Your task to perform on an android device: change the upload size in google photos Image 0: 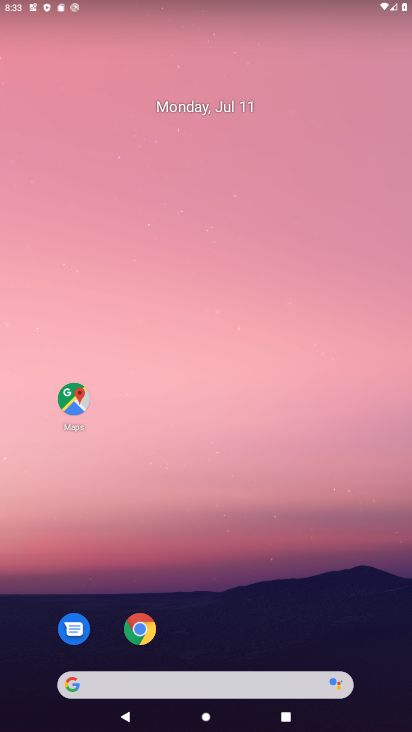
Step 0: click (136, 589)
Your task to perform on an android device: change the upload size in google photos Image 1: 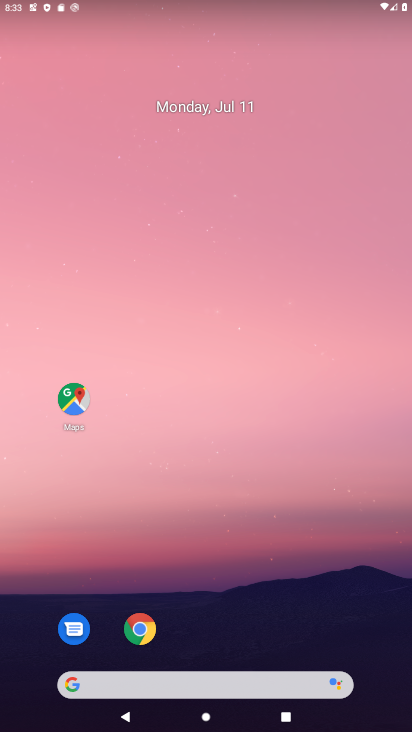
Step 1: drag from (238, 619) to (286, 104)
Your task to perform on an android device: change the upload size in google photos Image 2: 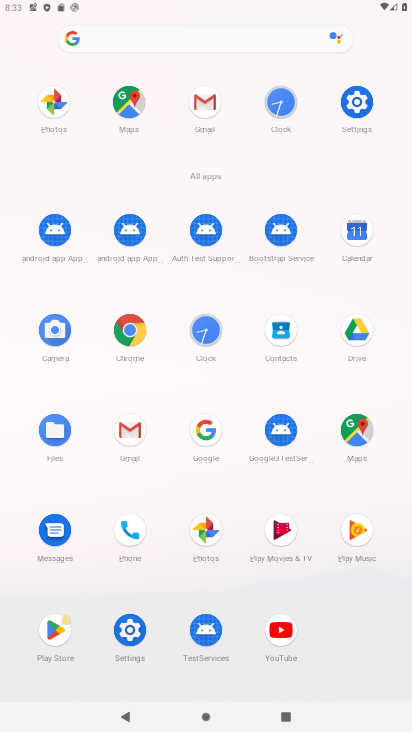
Step 2: click (53, 100)
Your task to perform on an android device: change the upload size in google photos Image 3: 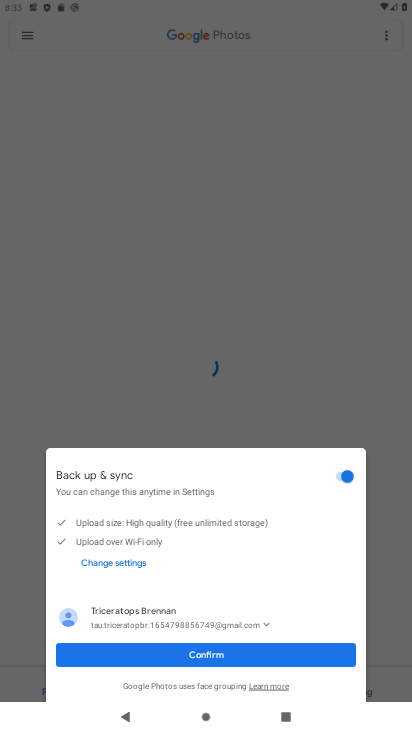
Step 3: click (135, 537)
Your task to perform on an android device: change the upload size in google photos Image 4: 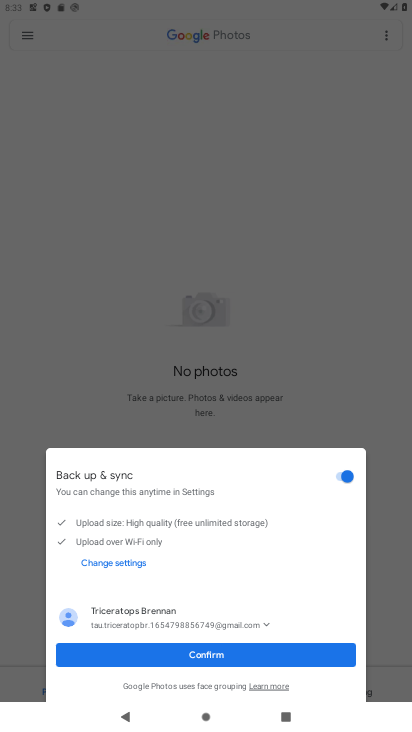
Step 4: click (118, 565)
Your task to perform on an android device: change the upload size in google photos Image 5: 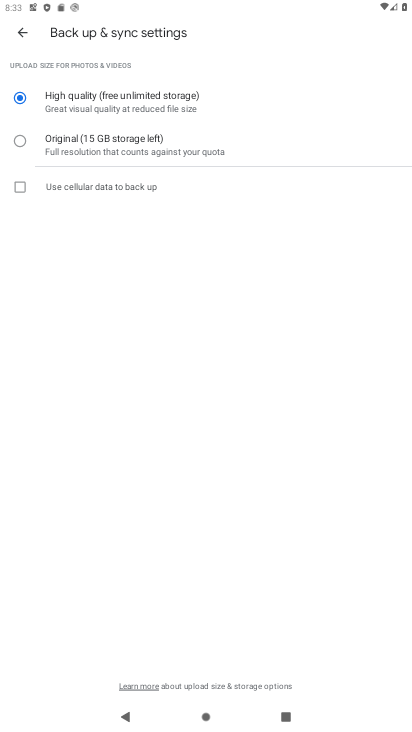
Step 5: click (41, 142)
Your task to perform on an android device: change the upload size in google photos Image 6: 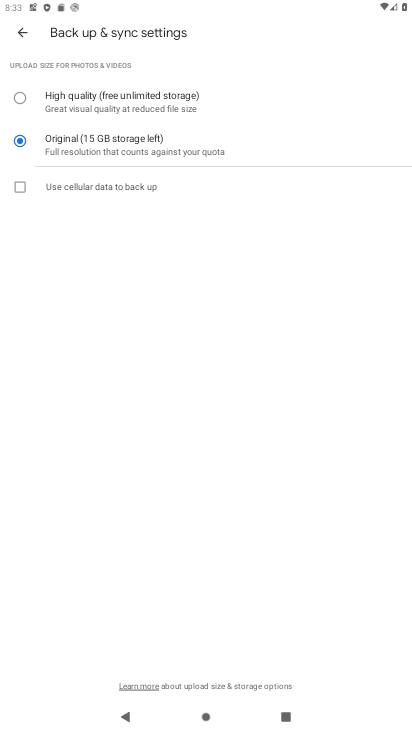
Step 6: task complete